Your task to perform on an android device: open app "TextNow: Call + Text Unlimited" Image 0: 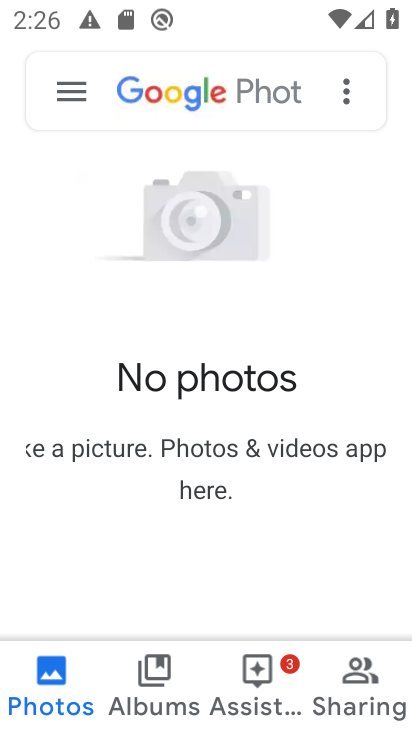
Step 0: press home button
Your task to perform on an android device: open app "TextNow: Call + Text Unlimited" Image 1: 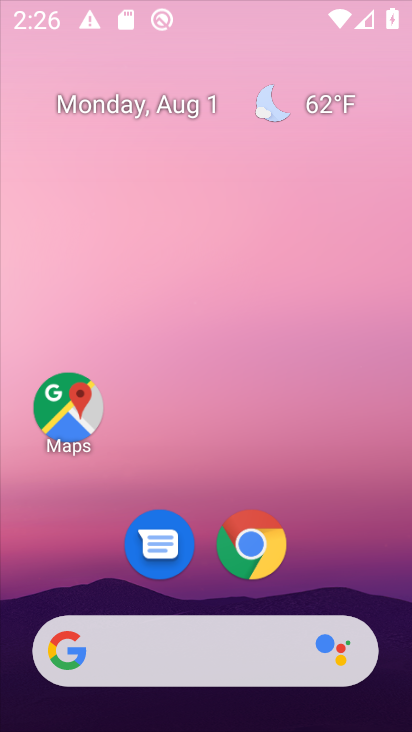
Step 1: drag from (404, 615) to (324, 205)
Your task to perform on an android device: open app "TextNow: Call + Text Unlimited" Image 2: 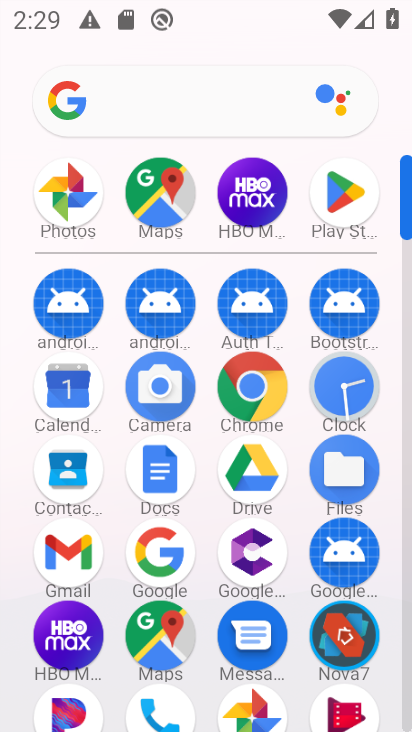
Step 2: click (344, 217)
Your task to perform on an android device: open app "TextNow: Call + Text Unlimited" Image 3: 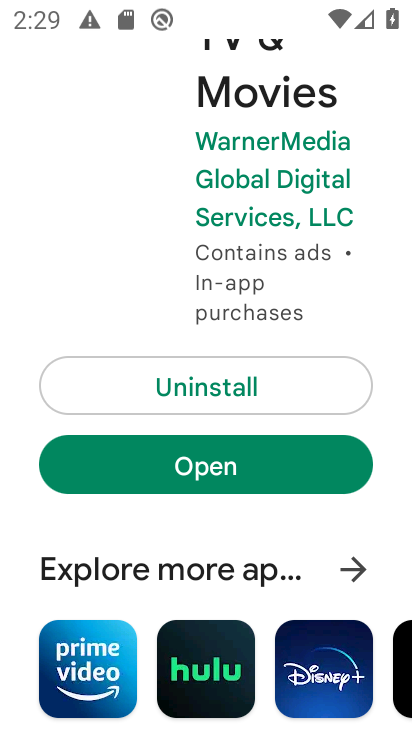
Step 3: press back button
Your task to perform on an android device: open app "TextNow: Call + Text Unlimited" Image 4: 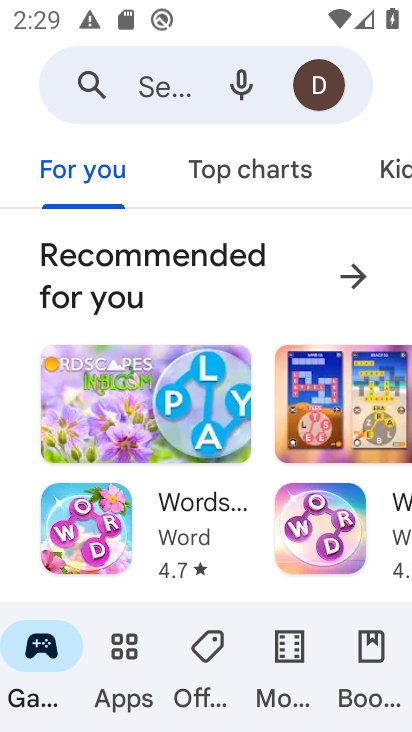
Step 4: click (164, 74)
Your task to perform on an android device: open app "TextNow: Call + Text Unlimited" Image 5: 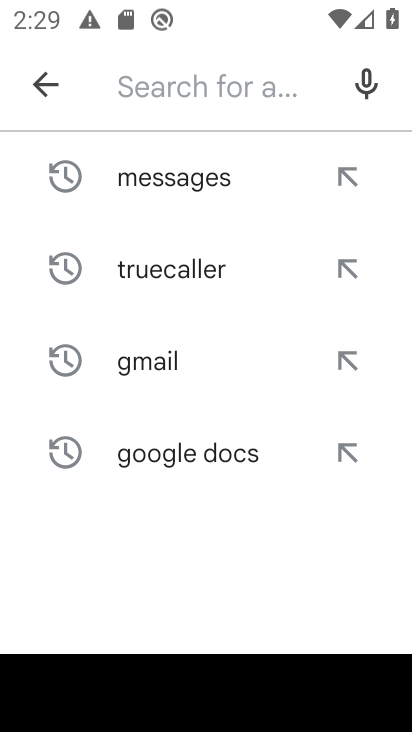
Step 5: type "TextNow: Call + Text Unlimited"
Your task to perform on an android device: open app "TextNow: Call + Text Unlimited" Image 6: 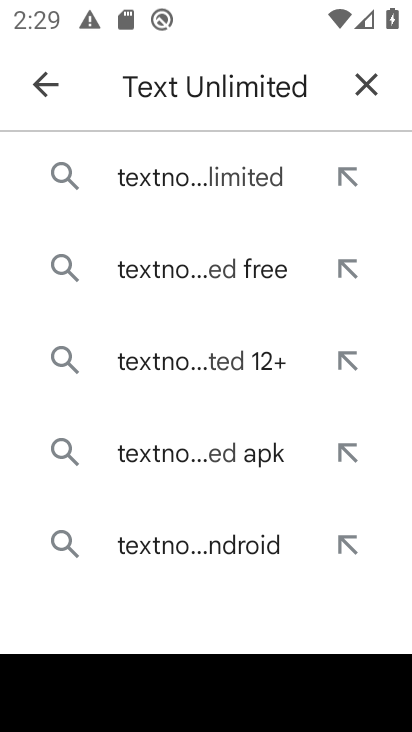
Step 6: click (158, 168)
Your task to perform on an android device: open app "TextNow: Call + Text Unlimited" Image 7: 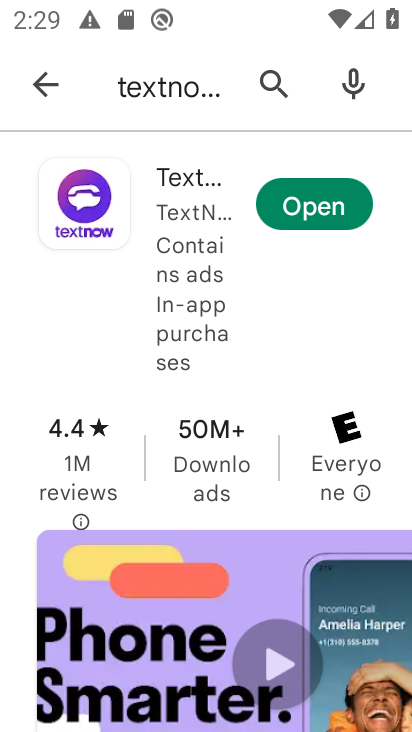
Step 7: click (315, 200)
Your task to perform on an android device: open app "TextNow: Call + Text Unlimited" Image 8: 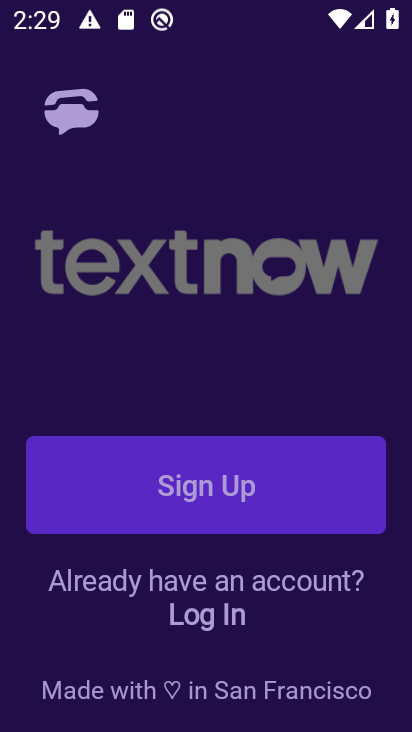
Step 8: task complete